Your task to perform on an android device: Check the news Image 0: 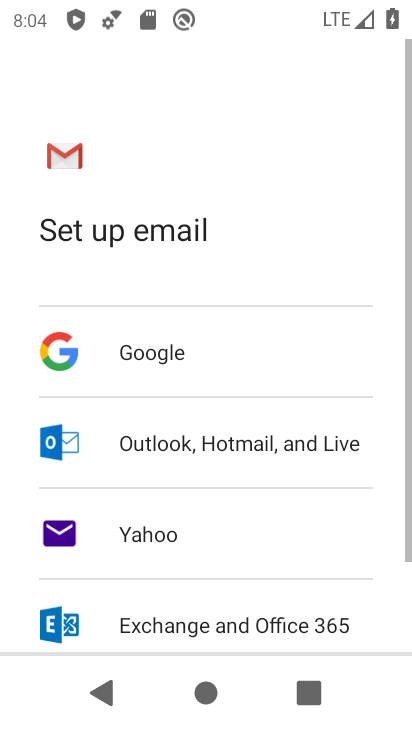
Step 0: press home button
Your task to perform on an android device: Check the news Image 1: 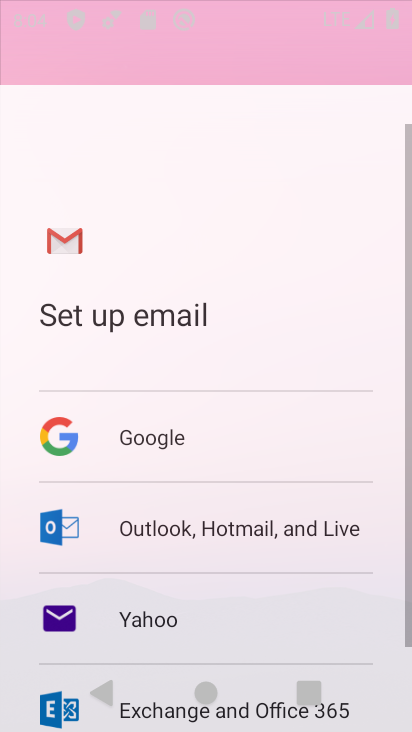
Step 1: drag from (166, 484) to (265, 178)
Your task to perform on an android device: Check the news Image 2: 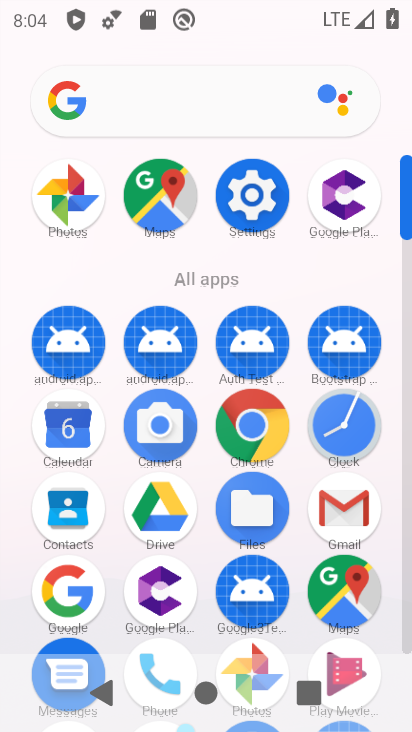
Step 2: click (158, 96)
Your task to perform on an android device: Check the news Image 3: 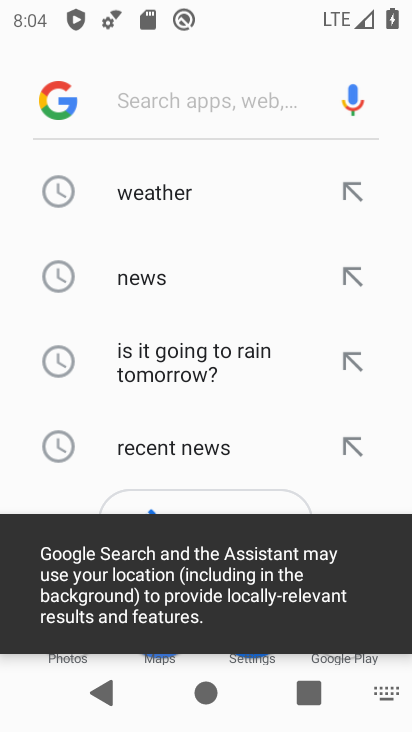
Step 3: click (177, 264)
Your task to perform on an android device: Check the news Image 4: 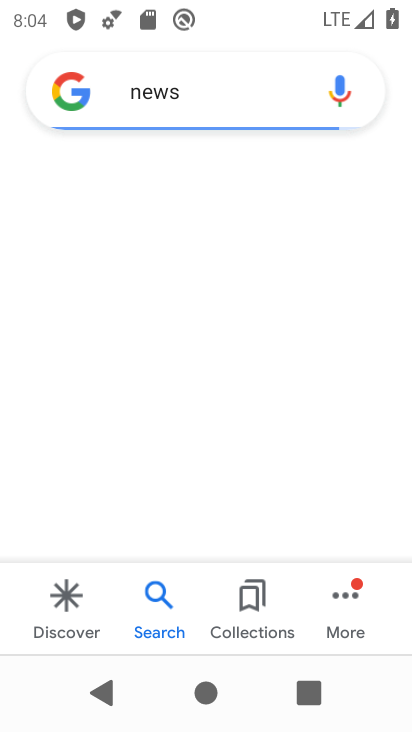
Step 4: task complete